Your task to perform on an android device: open app "HBO Max: Stream TV & Movies" (install if not already installed) Image 0: 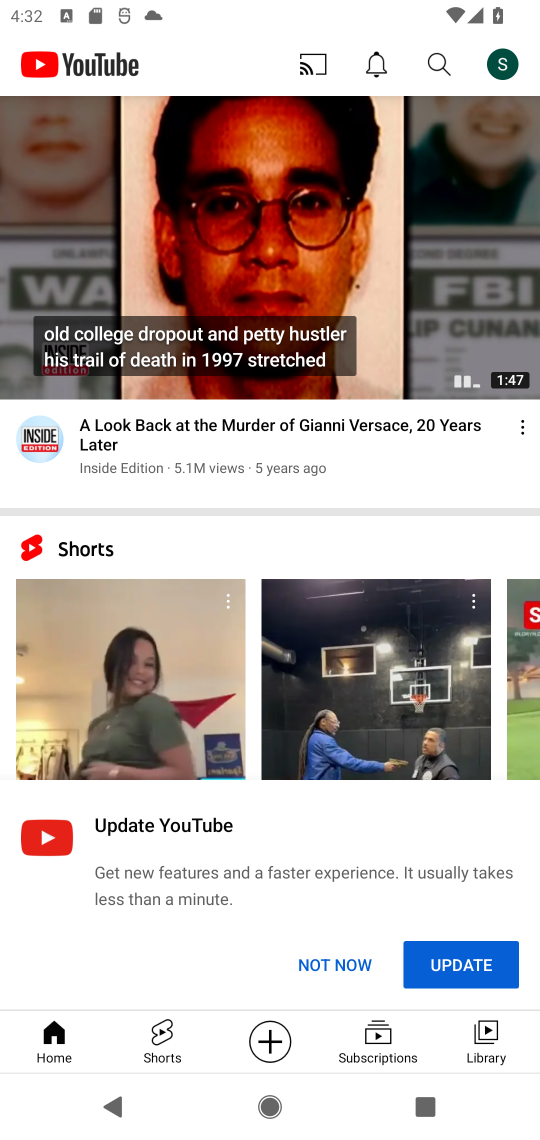
Step 0: press home button
Your task to perform on an android device: open app "HBO Max: Stream TV & Movies" (install if not already installed) Image 1: 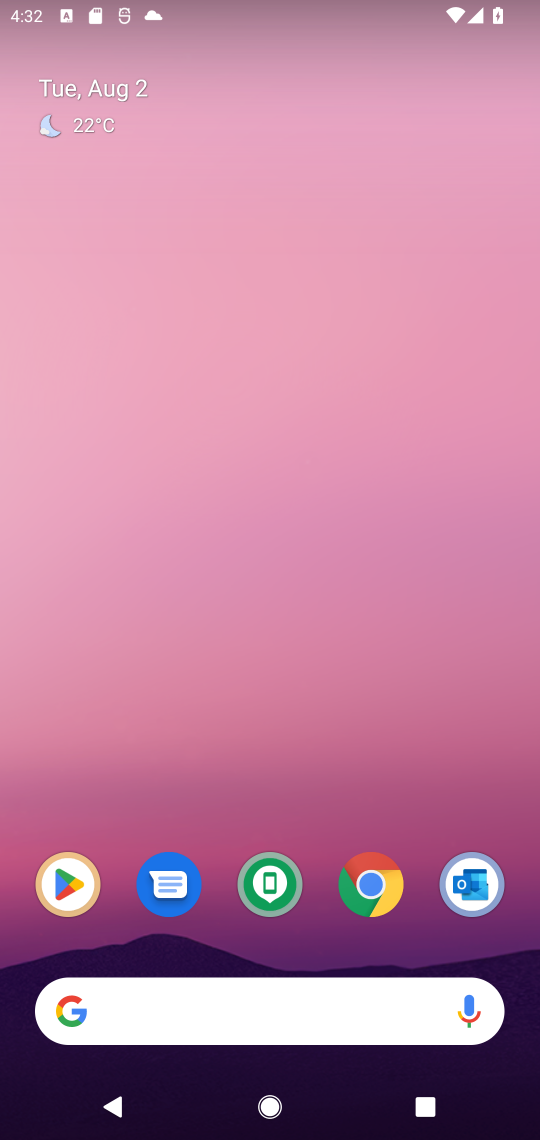
Step 1: click (76, 891)
Your task to perform on an android device: open app "HBO Max: Stream TV & Movies" (install if not already installed) Image 2: 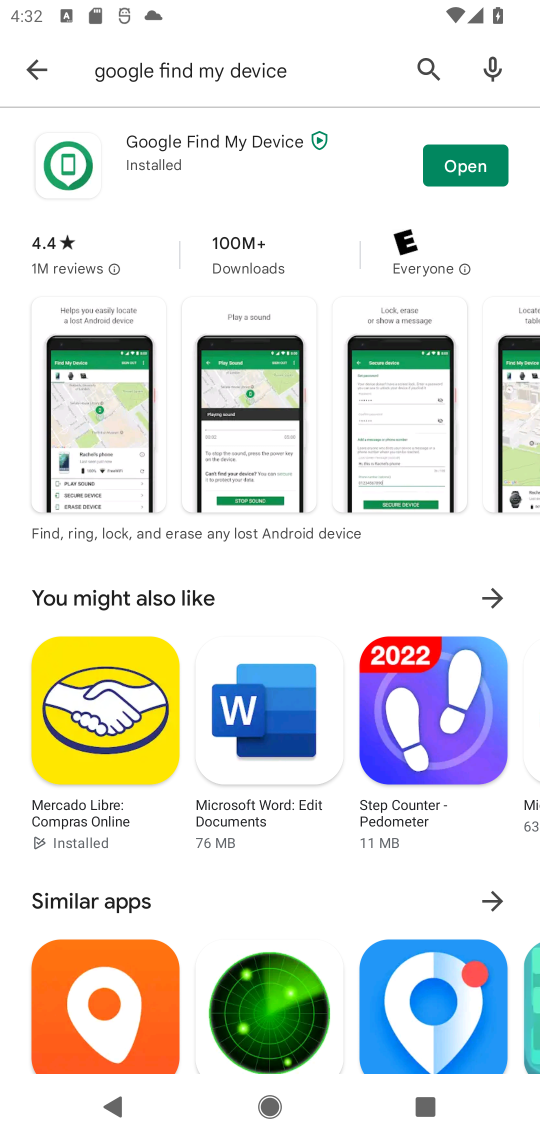
Step 2: click (37, 68)
Your task to perform on an android device: open app "HBO Max: Stream TV & Movies" (install if not already installed) Image 3: 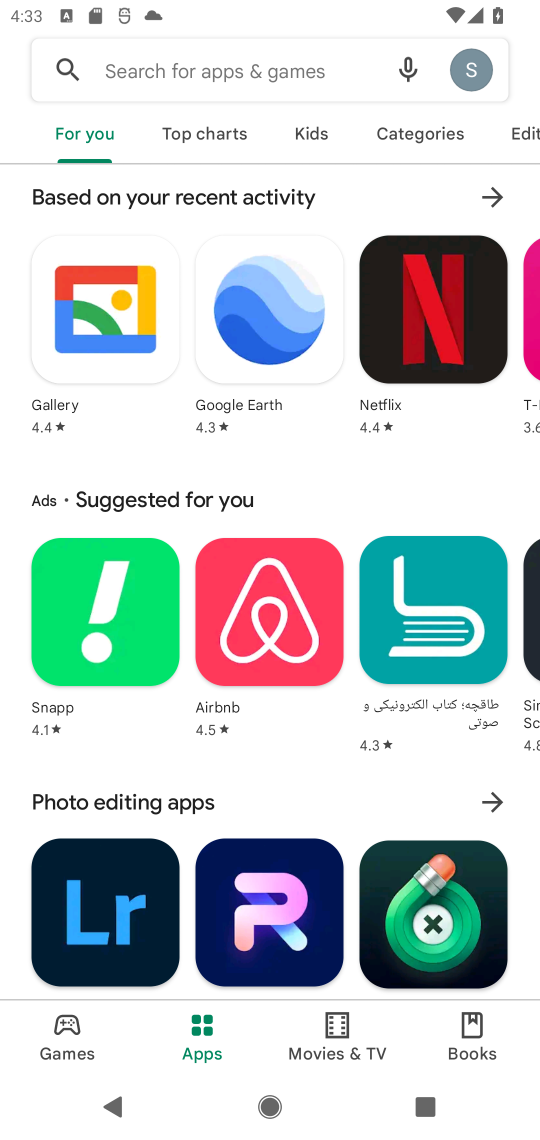
Step 3: click (135, 70)
Your task to perform on an android device: open app "HBO Max: Stream TV & Movies" (install if not already installed) Image 4: 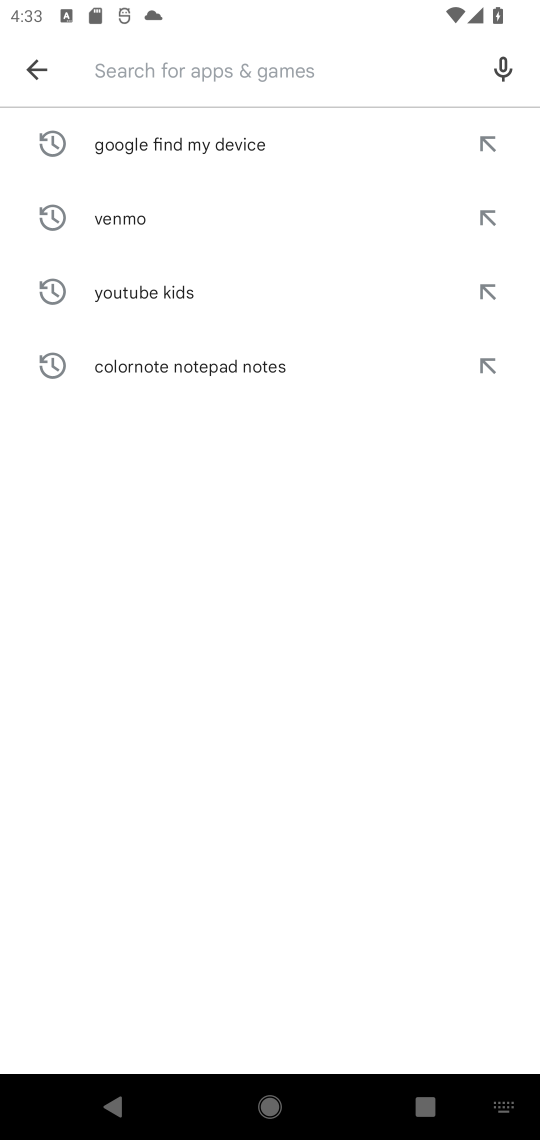
Step 4: type "HBO Max: Stream TV & Movies"
Your task to perform on an android device: open app "HBO Max: Stream TV & Movies" (install if not already installed) Image 5: 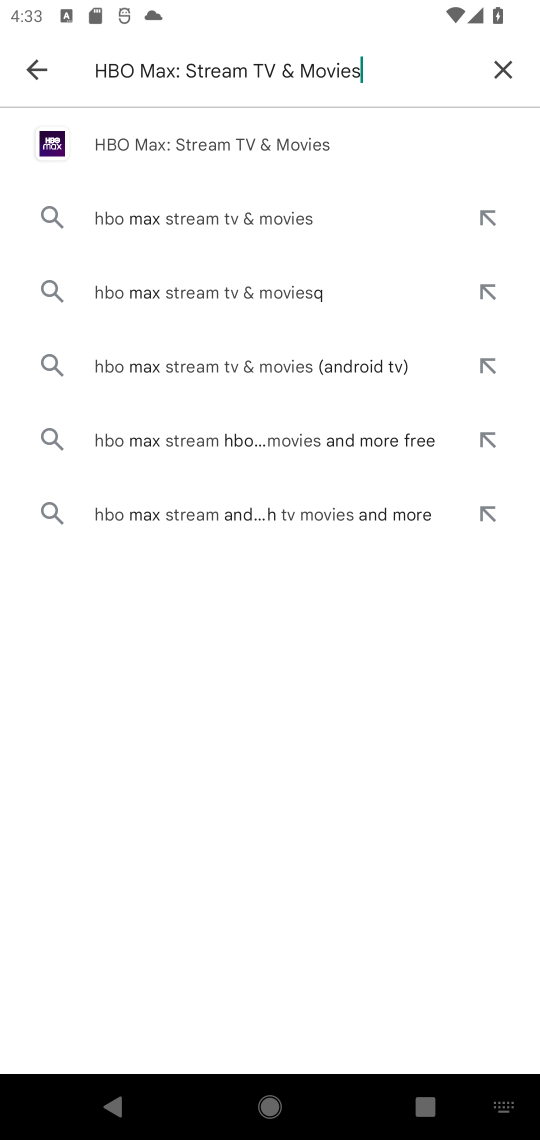
Step 5: click (242, 148)
Your task to perform on an android device: open app "HBO Max: Stream TV & Movies" (install if not already installed) Image 6: 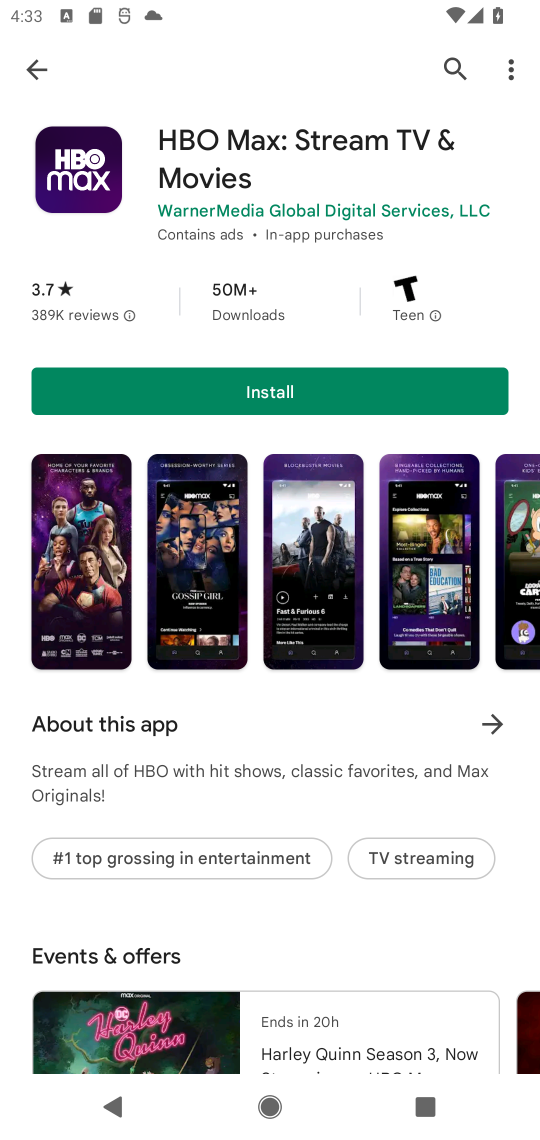
Step 6: click (281, 389)
Your task to perform on an android device: open app "HBO Max: Stream TV & Movies" (install if not already installed) Image 7: 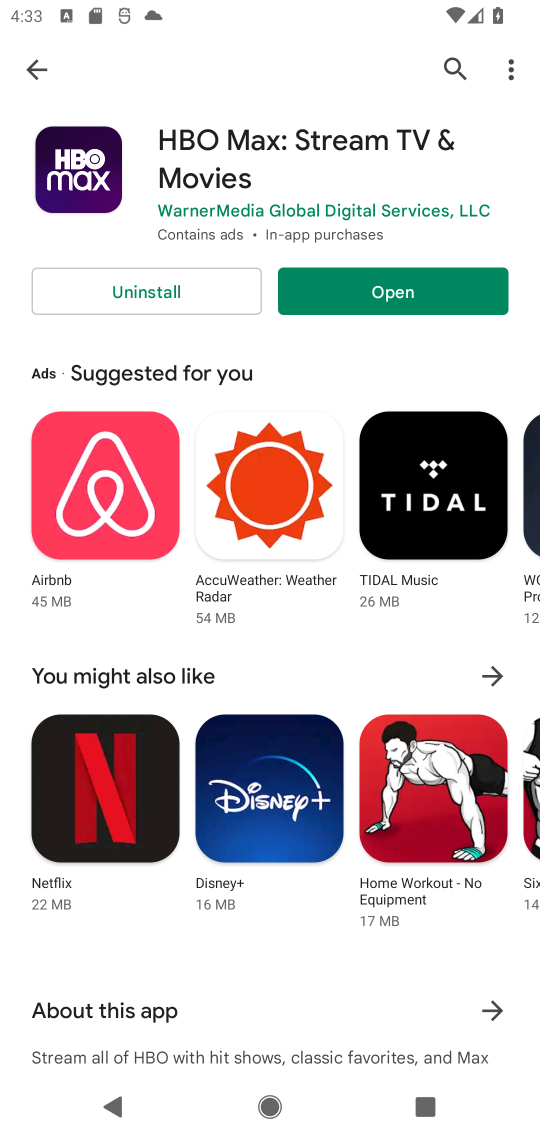
Step 7: click (425, 291)
Your task to perform on an android device: open app "HBO Max: Stream TV & Movies" (install if not already installed) Image 8: 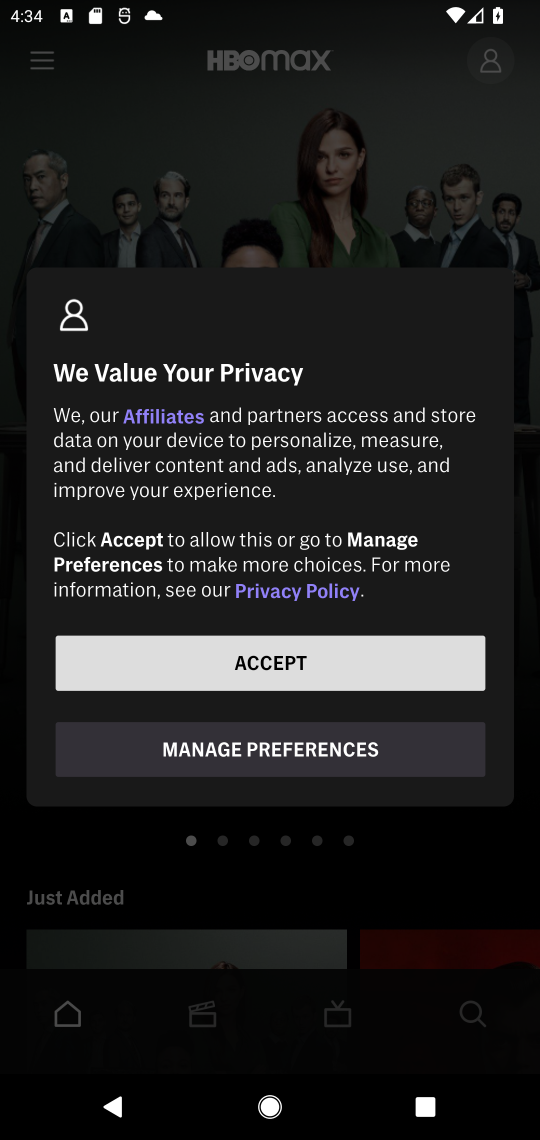
Step 8: press home button
Your task to perform on an android device: open app "HBO Max: Stream TV & Movies" (install if not already installed) Image 9: 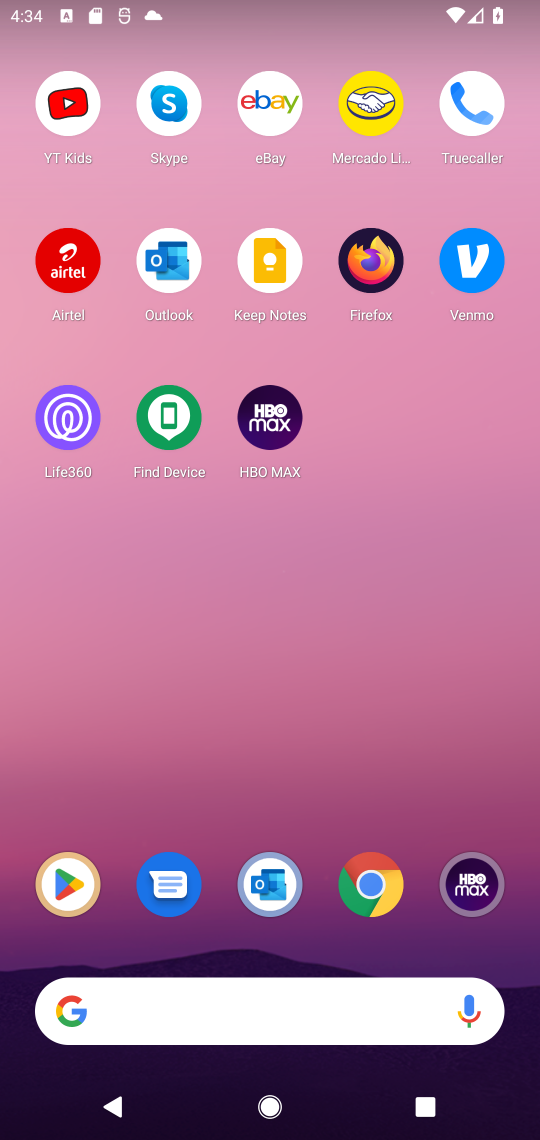
Step 9: click (45, 886)
Your task to perform on an android device: open app "HBO Max: Stream TV & Movies" (install if not already installed) Image 10: 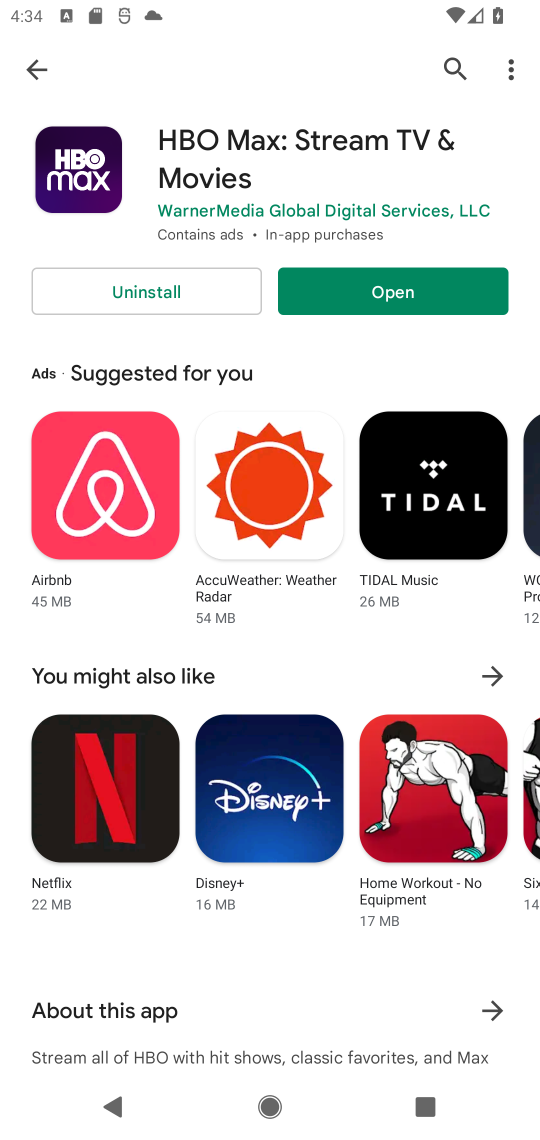
Step 10: click (32, 67)
Your task to perform on an android device: open app "HBO Max: Stream TV & Movies" (install if not already installed) Image 11: 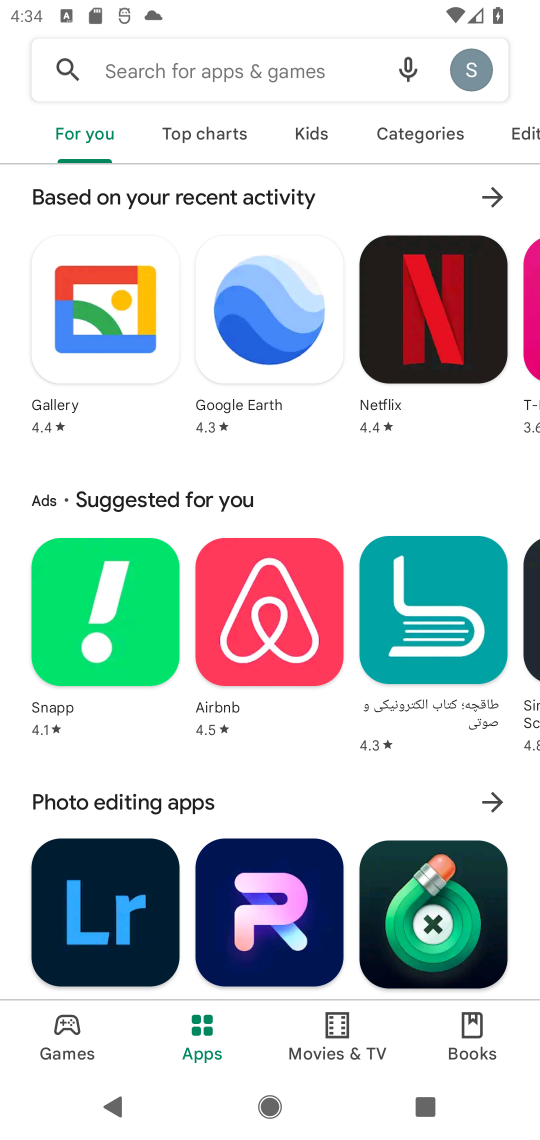
Step 11: click (177, 71)
Your task to perform on an android device: open app "HBO Max: Stream TV & Movies" (install if not already installed) Image 12: 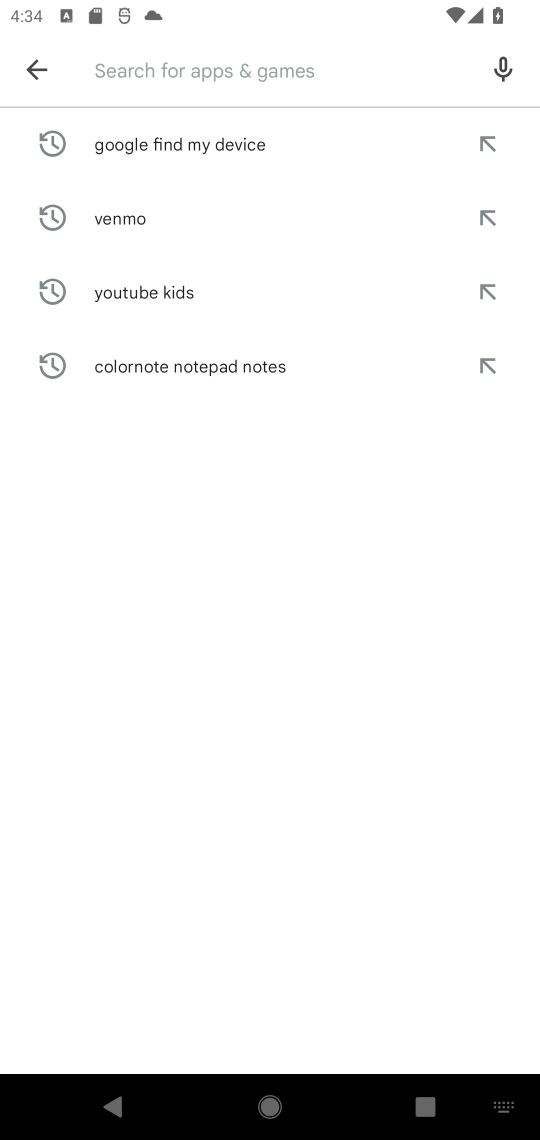
Step 12: type "HBO Max: Stream TV & Movies"
Your task to perform on an android device: open app "HBO Max: Stream TV & Movies" (install if not already installed) Image 13: 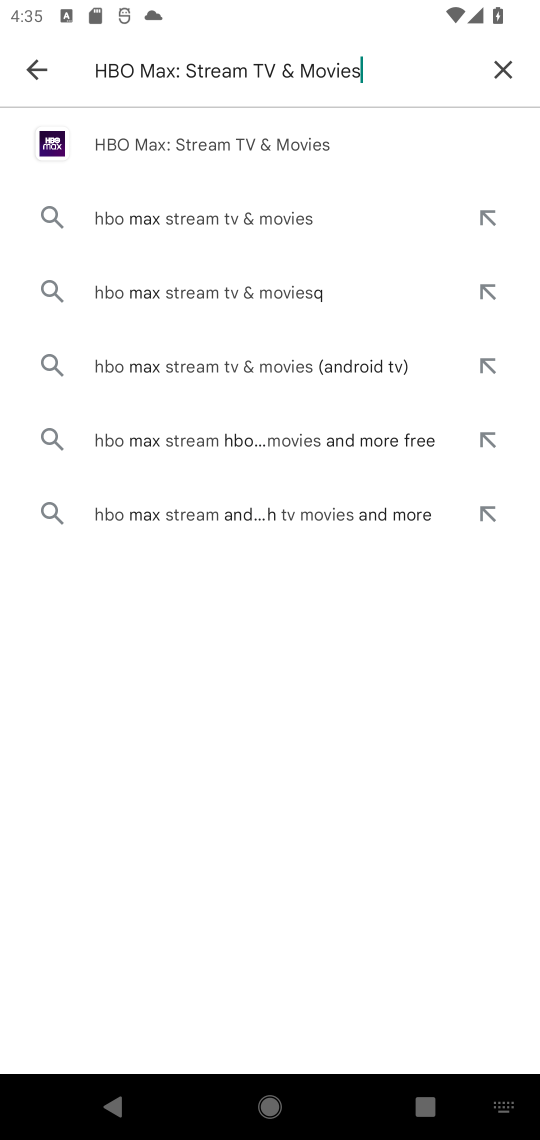
Step 13: click (165, 143)
Your task to perform on an android device: open app "HBO Max: Stream TV & Movies" (install if not already installed) Image 14: 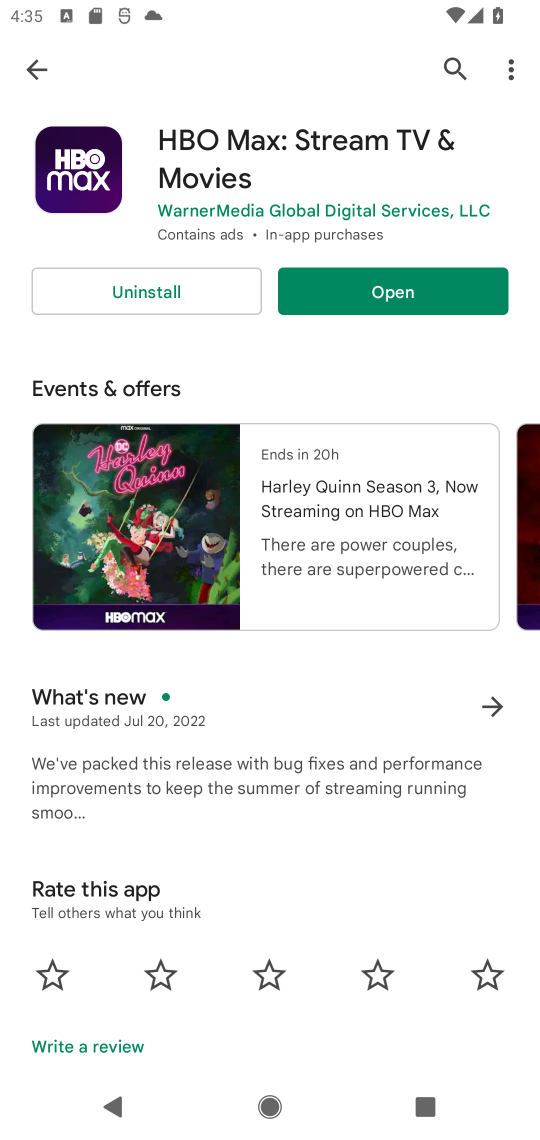
Step 14: click (346, 296)
Your task to perform on an android device: open app "HBO Max: Stream TV & Movies" (install if not already installed) Image 15: 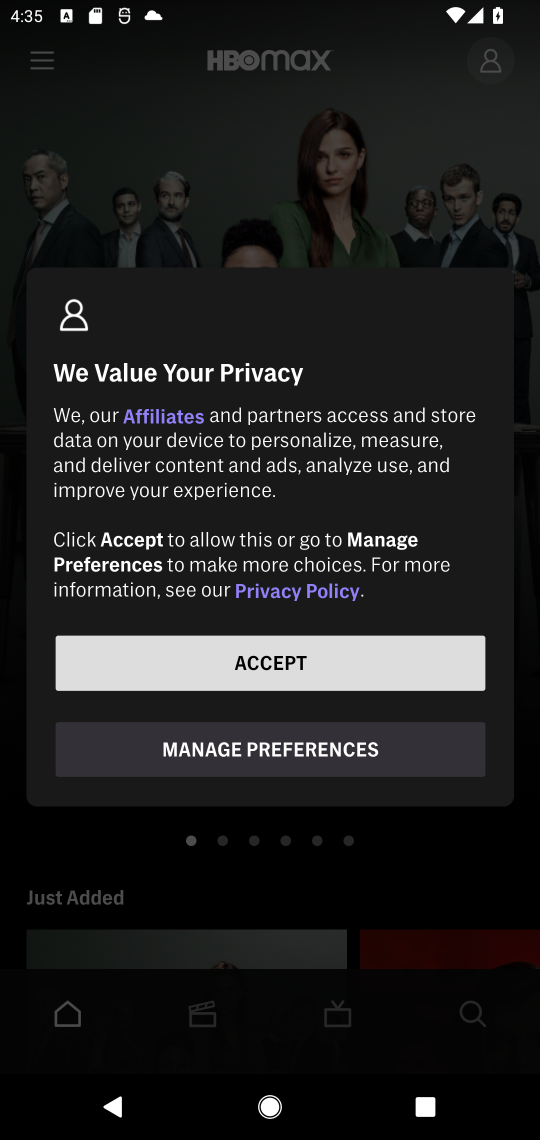
Step 15: task complete